Your task to perform on an android device: remove spam from my inbox in the gmail app Image 0: 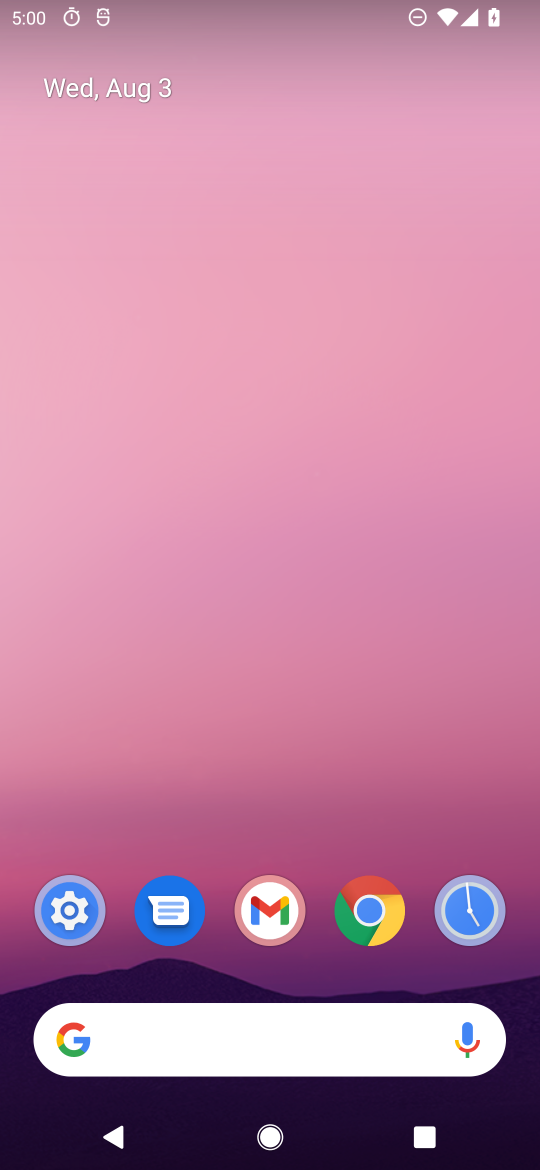
Step 0: click (273, 929)
Your task to perform on an android device: remove spam from my inbox in the gmail app Image 1: 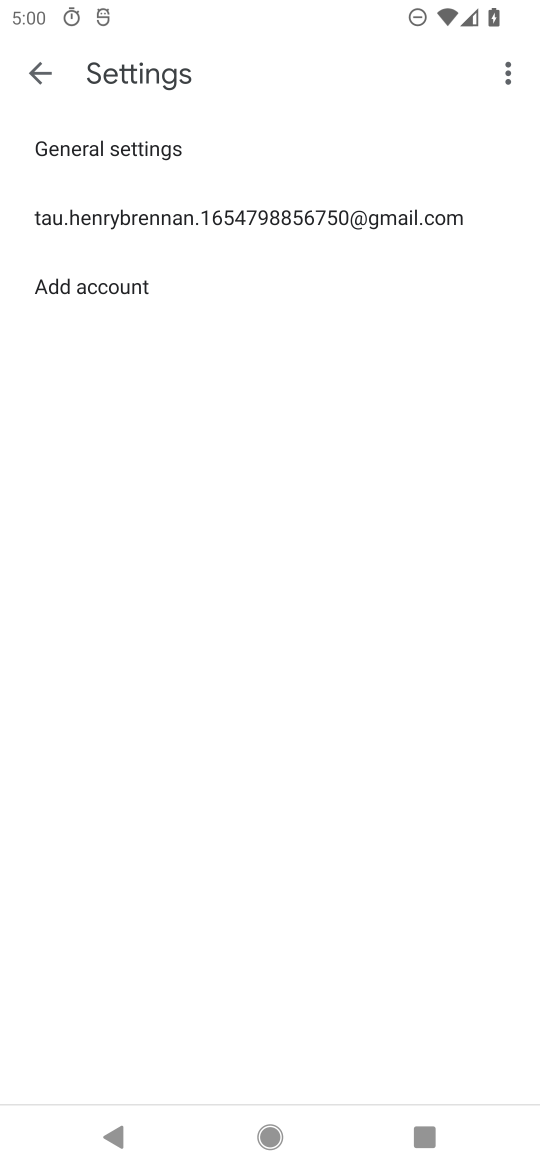
Step 1: click (51, 56)
Your task to perform on an android device: remove spam from my inbox in the gmail app Image 2: 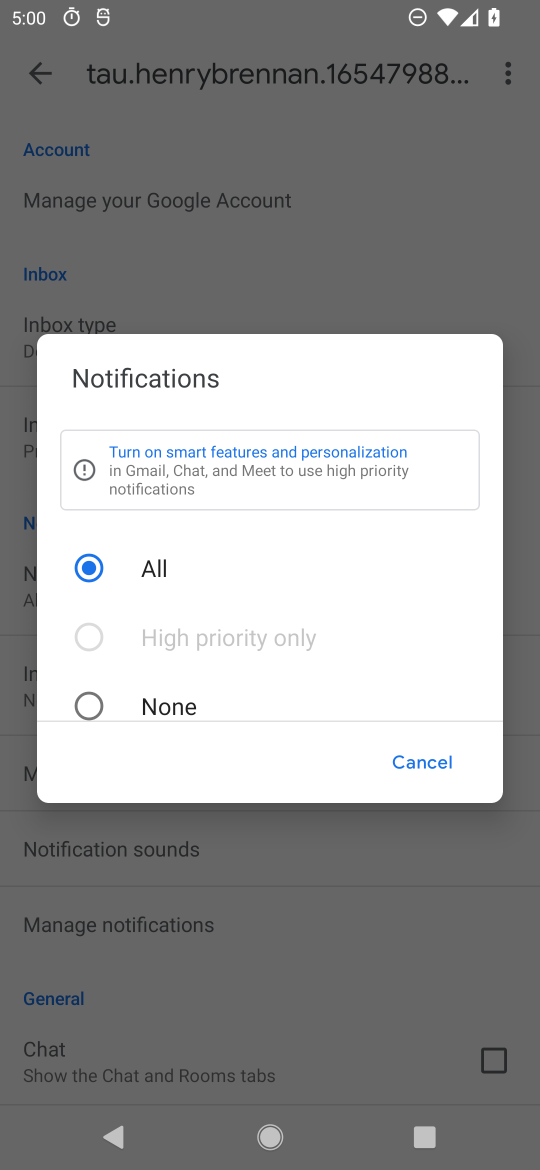
Step 2: drag from (504, 765) to (448, 765)
Your task to perform on an android device: remove spam from my inbox in the gmail app Image 3: 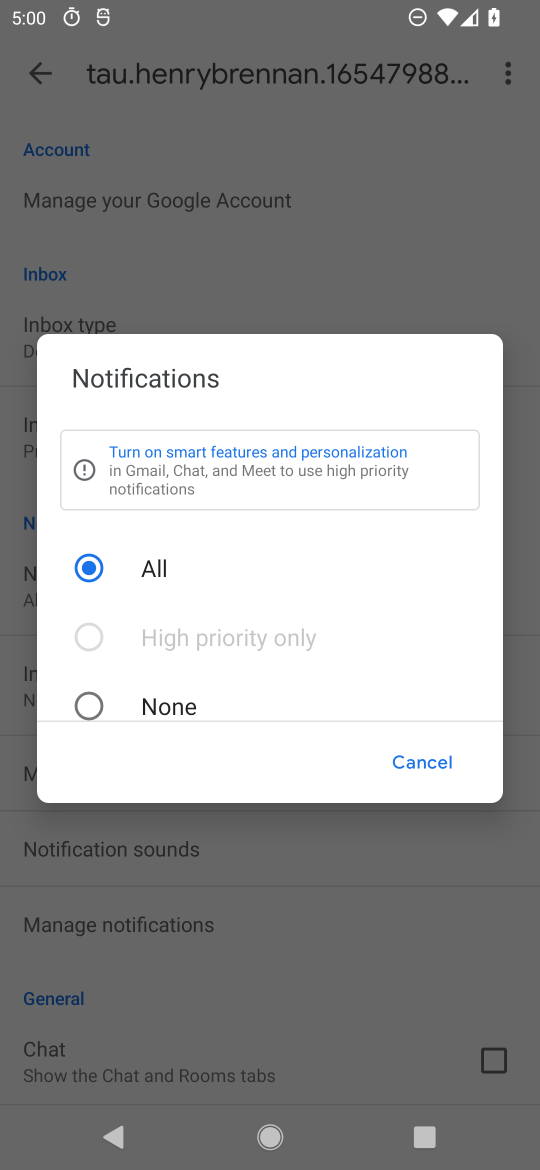
Step 3: click (433, 765)
Your task to perform on an android device: remove spam from my inbox in the gmail app Image 4: 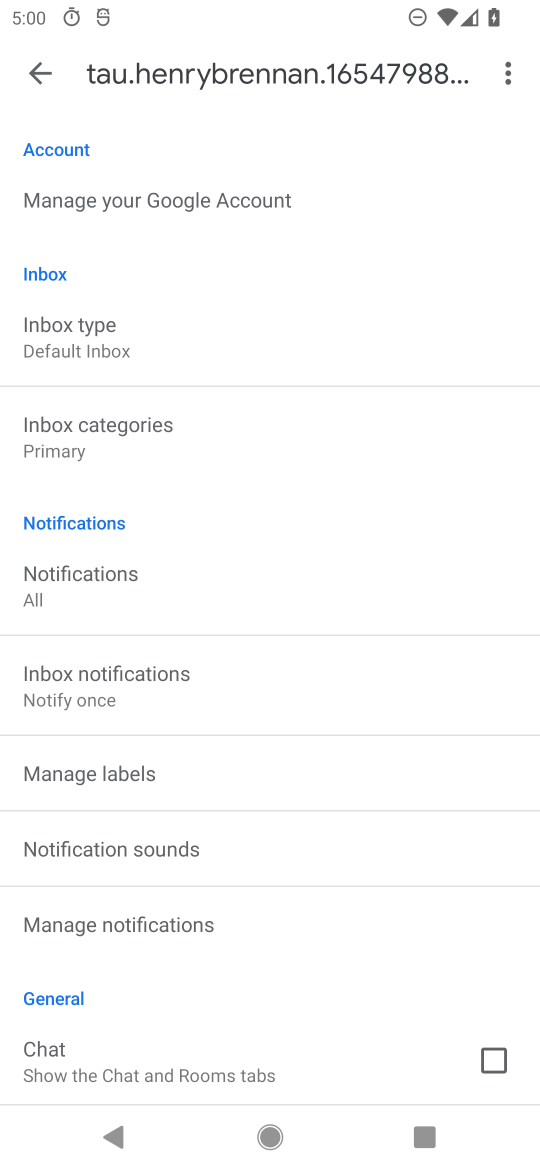
Step 4: click (45, 57)
Your task to perform on an android device: remove spam from my inbox in the gmail app Image 5: 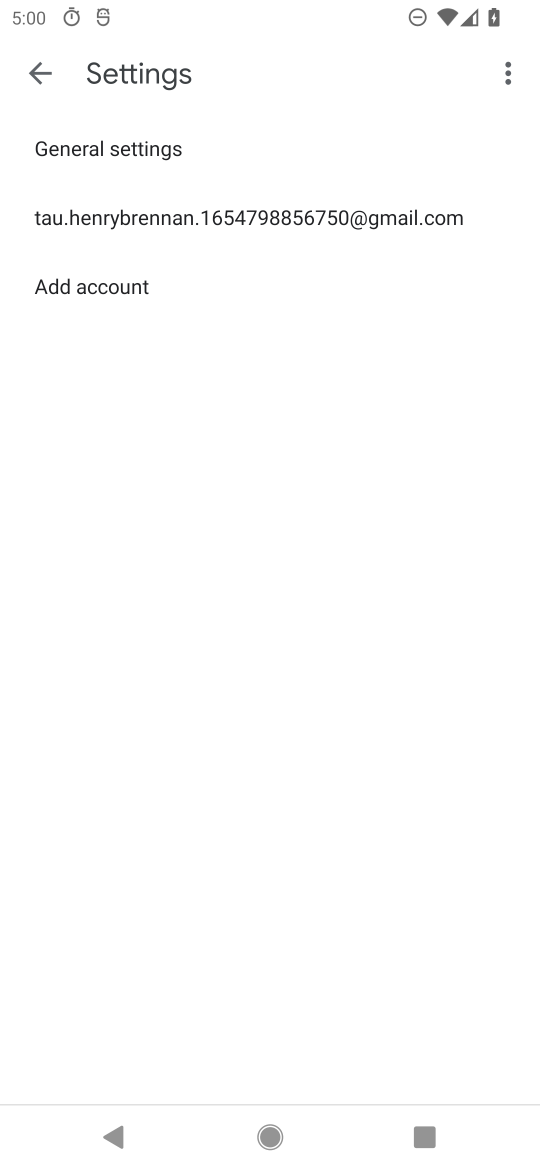
Step 5: click (43, 59)
Your task to perform on an android device: remove spam from my inbox in the gmail app Image 6: 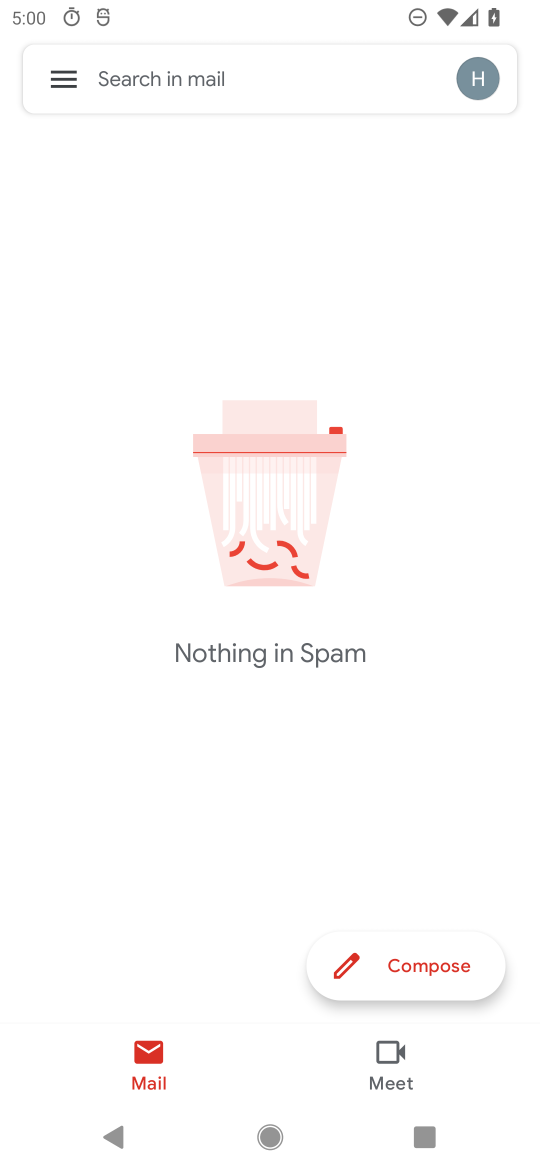
Step 6: click (64, 82)
Your task to perform on an android device: remove spam from my inbox in the gmail app Image 7: 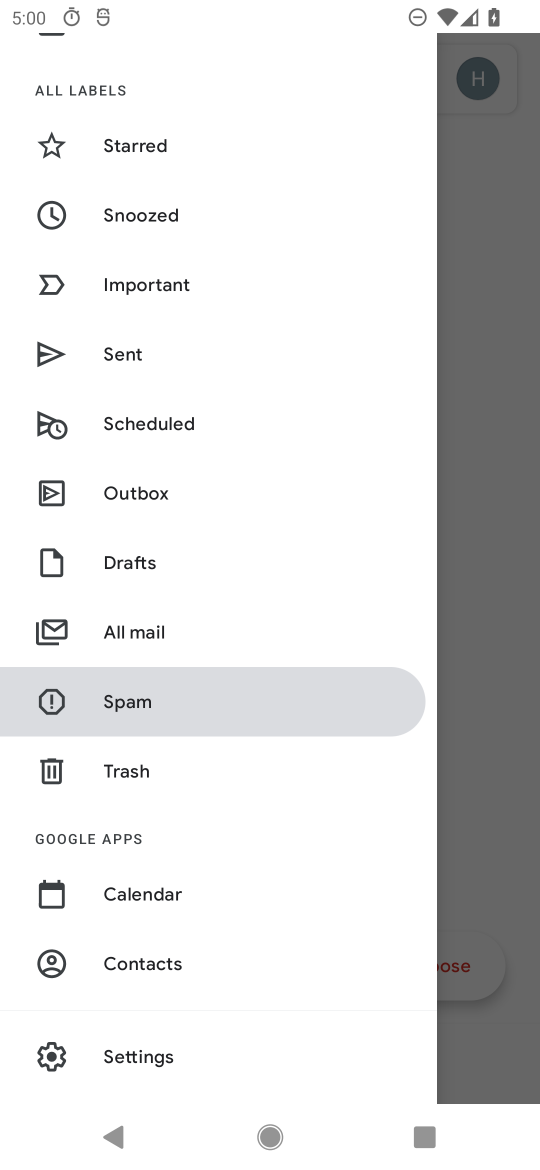
Step 7: click (169, 689)
Your task to perform on an android device: remove spam from my inbox in the gmail app Image 8: 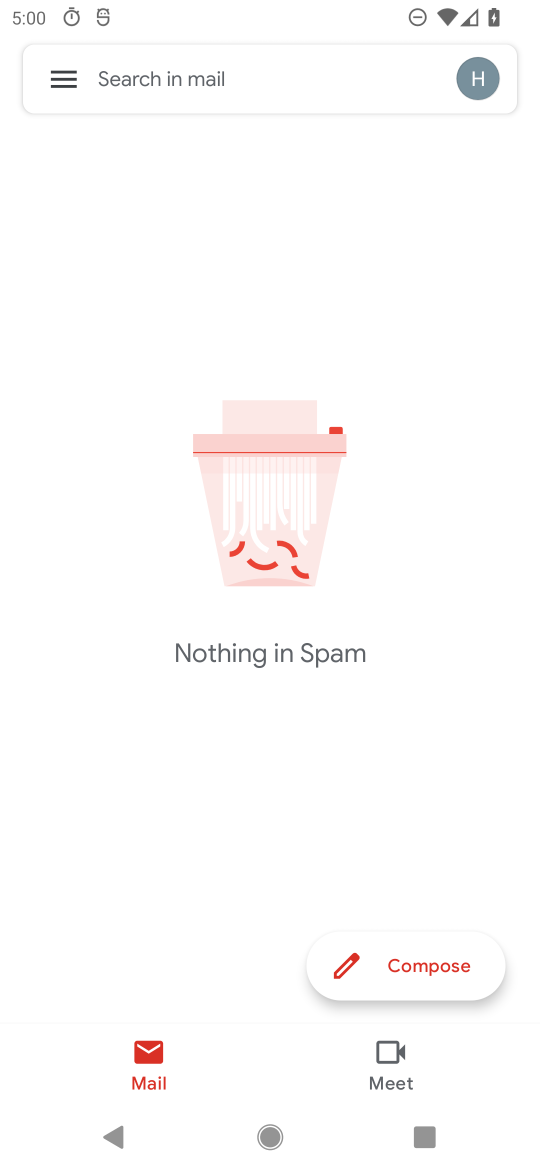
Step 8: task complete